Your task to perform on an android device: check battery use Image 0: 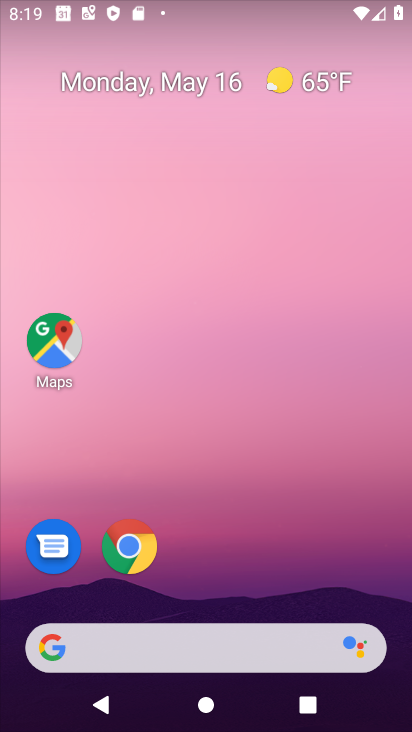
Step 0: drag from (303, 590) to (277, 96)
Your task to perform on an android device: check battery use Image 1: 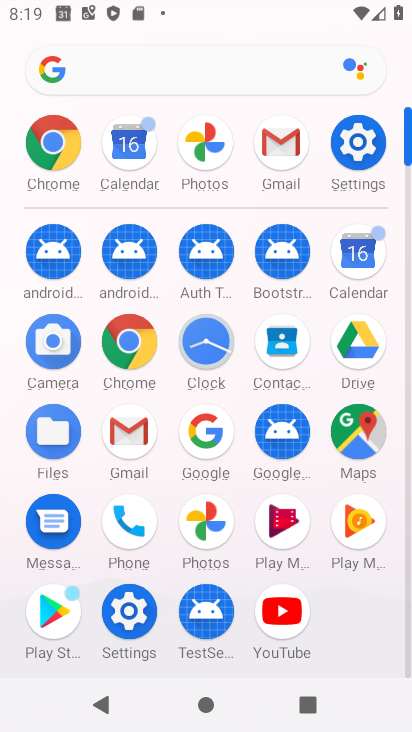
Step 1: click (352, 166)
Your task to perform on an android device: check battery use Image 2: 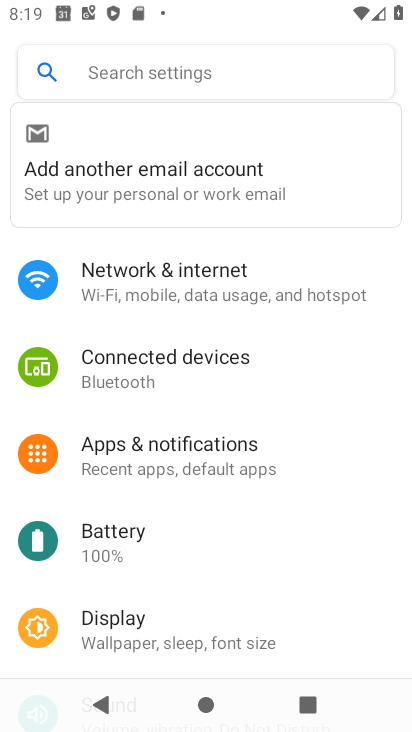
Step 2: drag from (204, 507) to (237, 349)
Your task to perform on an android device: check battery use Image 3: 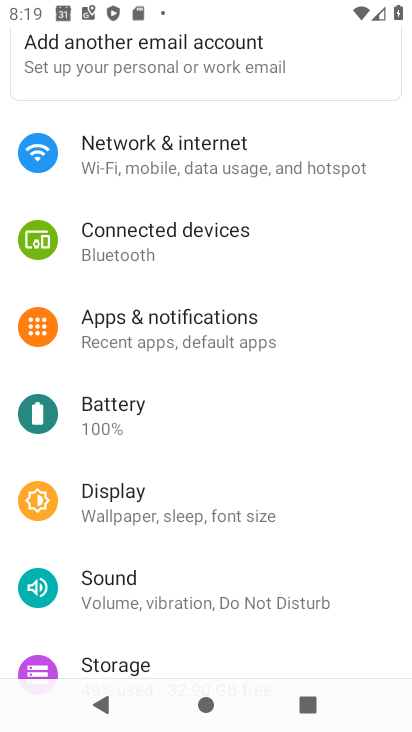
Step 3: click (205, 419)
Your task to perform on an android device: check battery use Image 4: 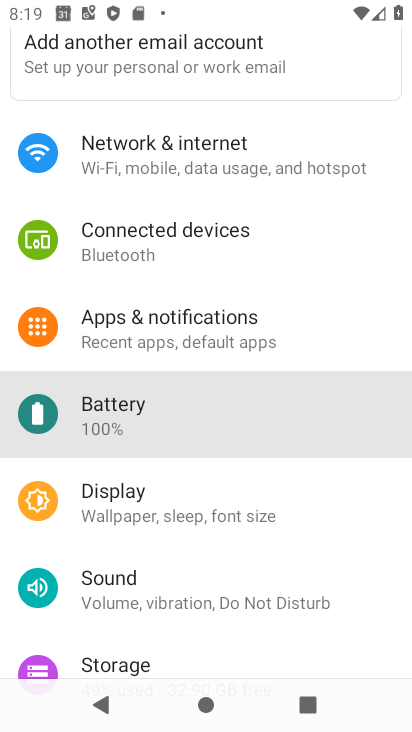
Step 4: task complete